Your task to perform on an android device: find which apps use the phone's location Image 0: 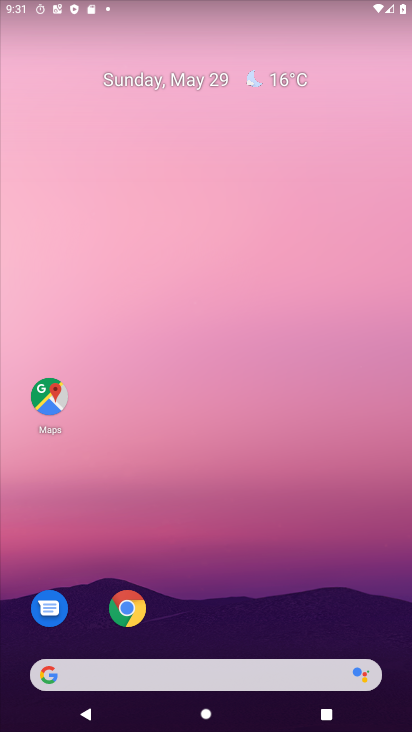
Step 0: drag from (201, 611) to (280, 8)
Your task to perform on an android device: find which apps use the phone's location Image 1: 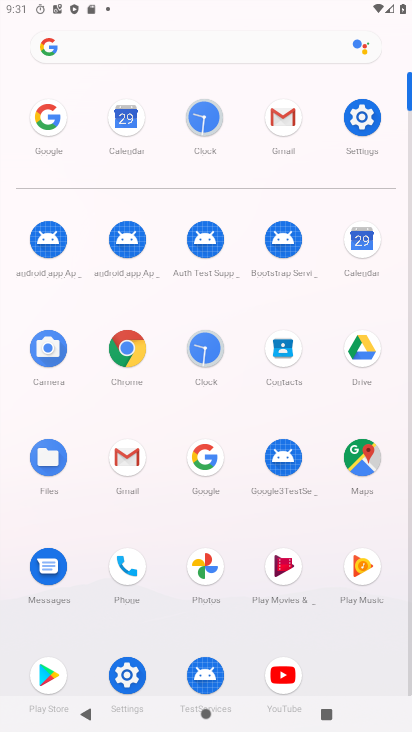
Step 1: click (369, 155)
Your task to perform on an android device: find which apps use the phone's location Image 2: 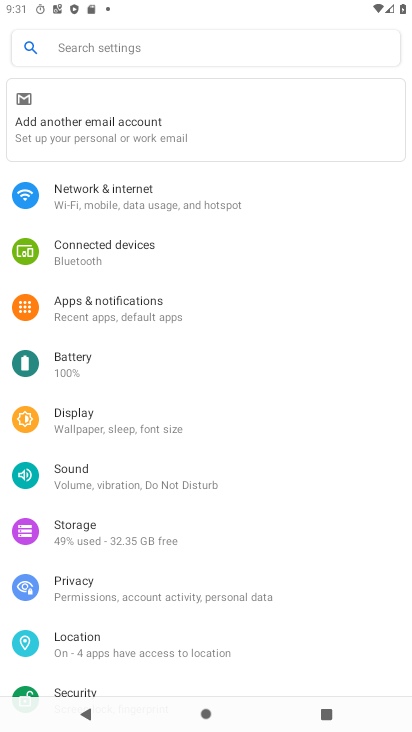
Step 2: click (101, 654)
Your task to perform on an android device: find which apps use the phone's location Image 3: 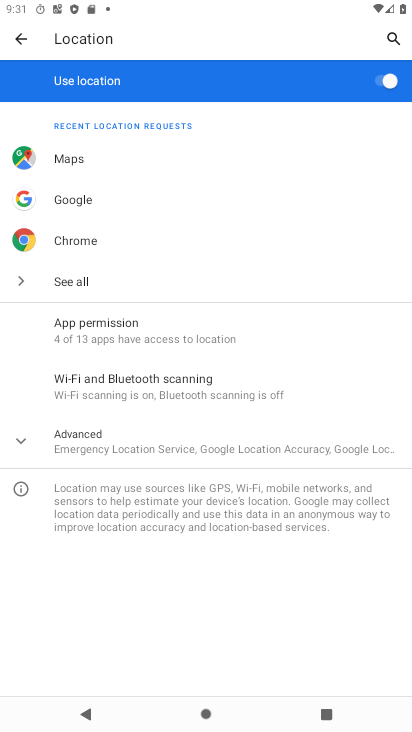
Step 3: click (76, 341)
Your task to perform on an android device: find which apps use the phone's location Image 4: 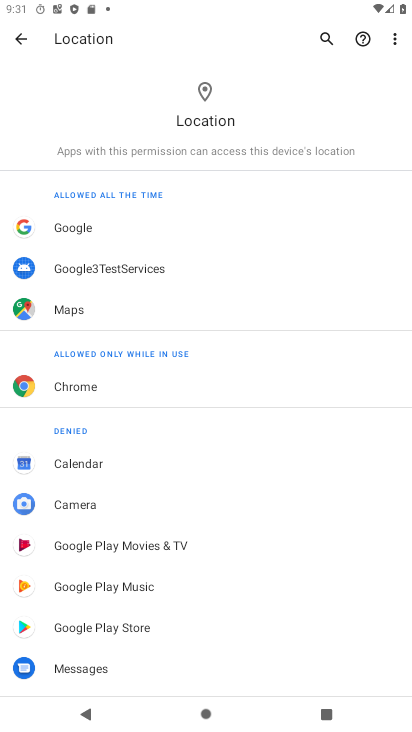
Step 4: task complete